Your task to perform on an android device: turn off notifications in google photos Image 0: 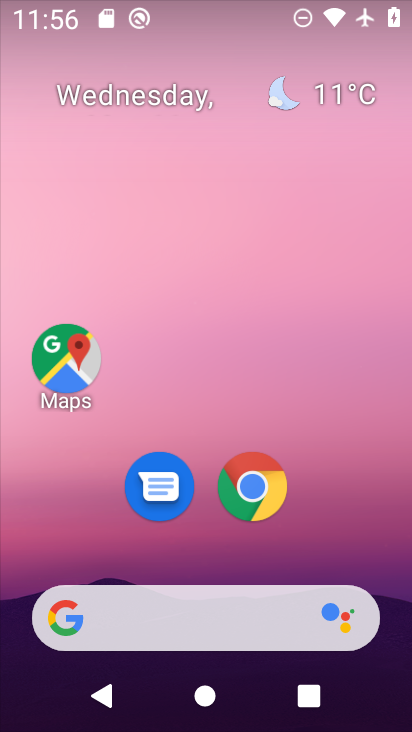
Step 0: drag from (337, 501) to (335, 51)
Your task to perform on an android device: turn off notifications in google photos Image 1: 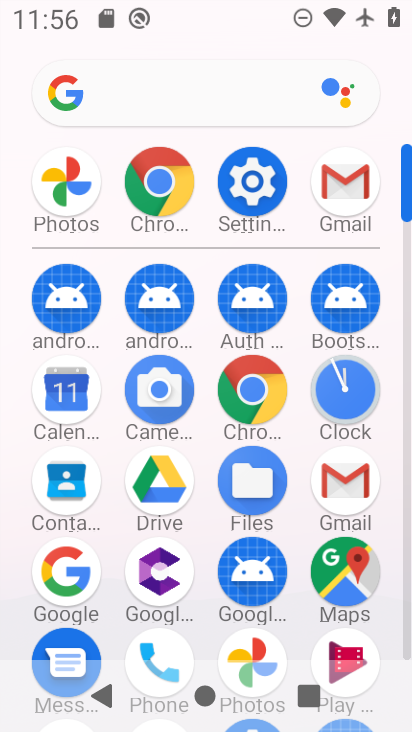
Step 1: drag from (13, 620) to (1, 351)
Your task to perform on an android device: turn off notifications in google photos Image 2: 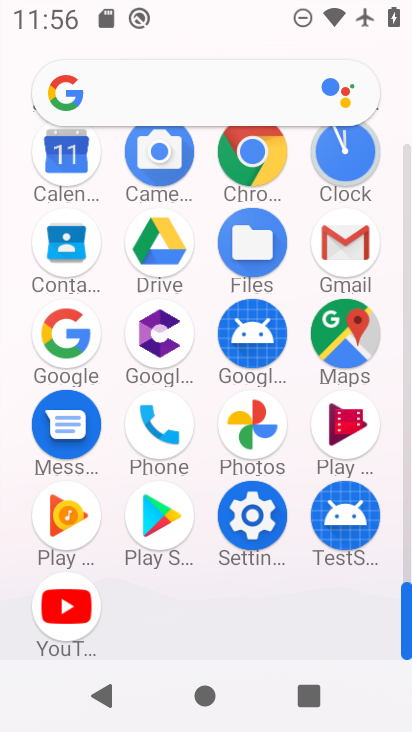
Step 2: click (252, 424)
Your task to perform on an android device: turn off notifications in google photos Image 3: 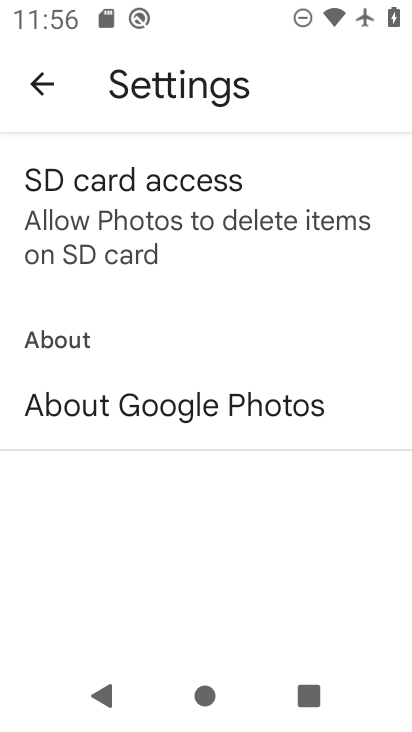
Step 3: click (29, 82)
Your task to perform on an android device: turn off notifications in google photos Image 4: 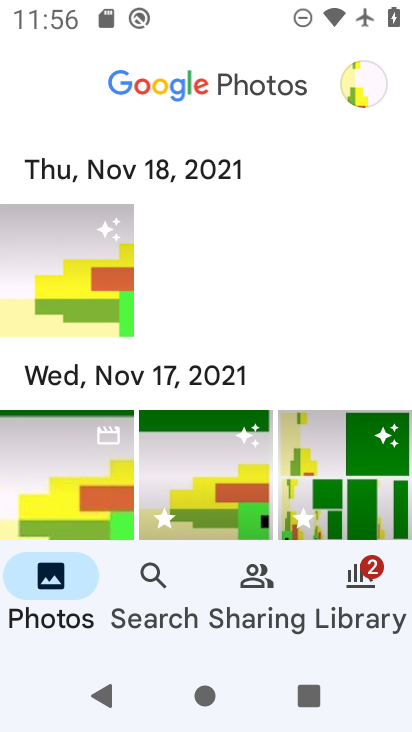
Step 4: click (353, 78)
Your task to perform on an android device: turn off notifications in google photos Image 5: 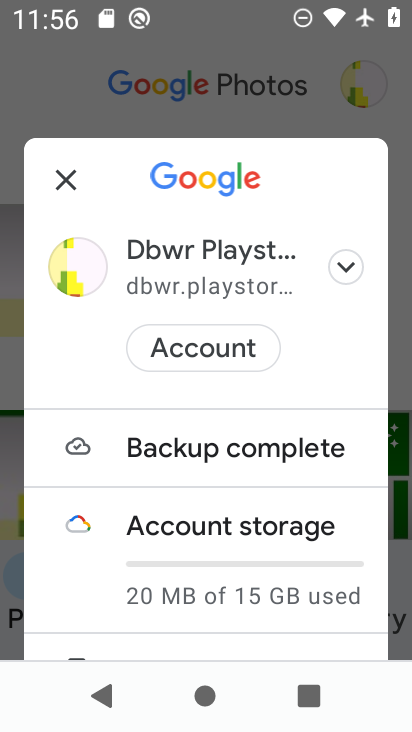
Step 5: drag from (246, 594) to (274, 250)
Your task to perform on an android device: turn off notifications in google photos Image 6: 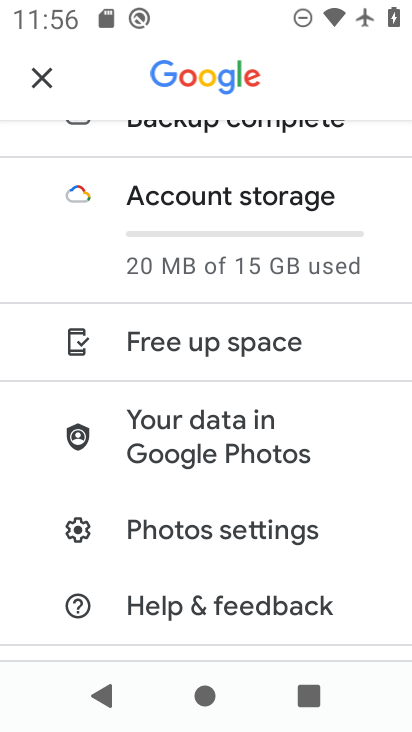
Step 6: click (240, 529)
Your task to perform on an android device: turn off notifications in google photos Image 7: 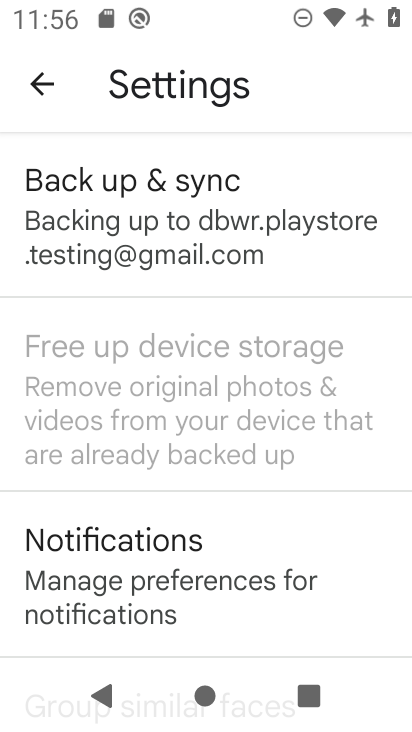
Step 7: click (246, 546)
Your task to perform on an android device: turn off notifications in google photos Image 8: 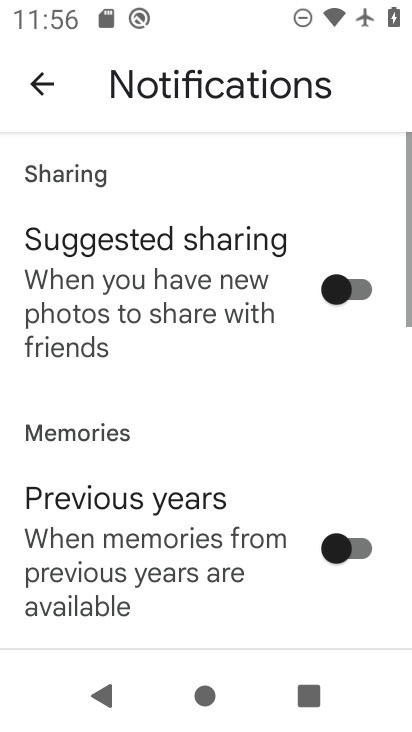
Step 8: drag from (242, 569) to (244, 132)
Your task to perform on an android device: turn off notifications in google photos Image 9: 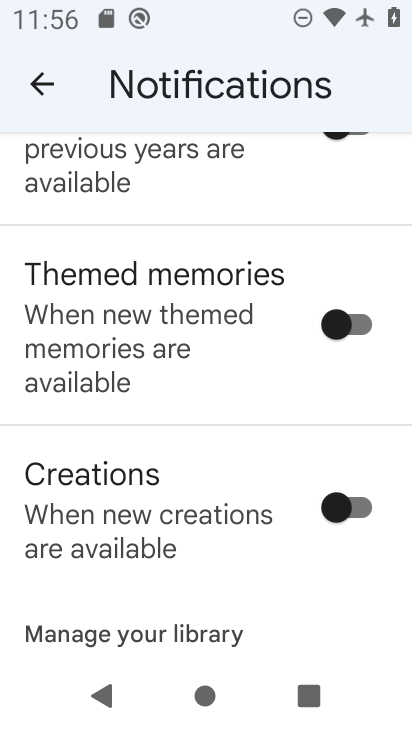
Step 9: drag from (191, 604) to (190, 153)
Your task to perform on an android device: turn off notifications in google photos Image 10: 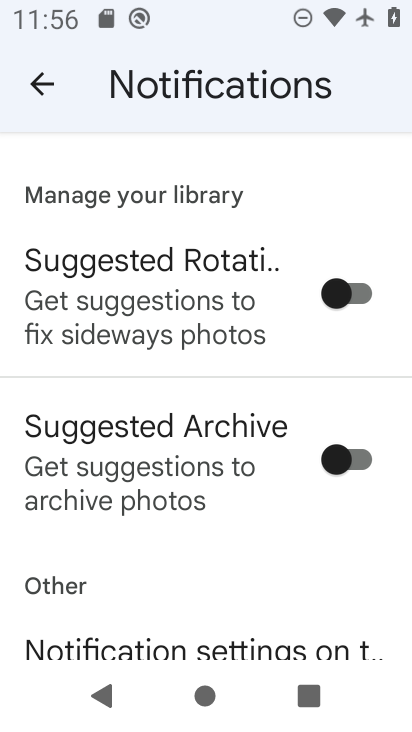
Step 10: drag from (183, 525) to (175, 199)
Your task to perform on an android device: turn off notifications in google photos Image 11: 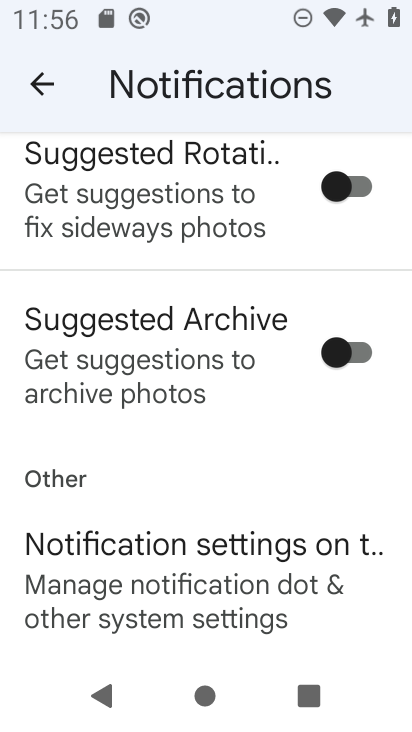
Step 11: click (145, 632)
Your task to perform on an android device: turn off notifications in google photos Image 12: 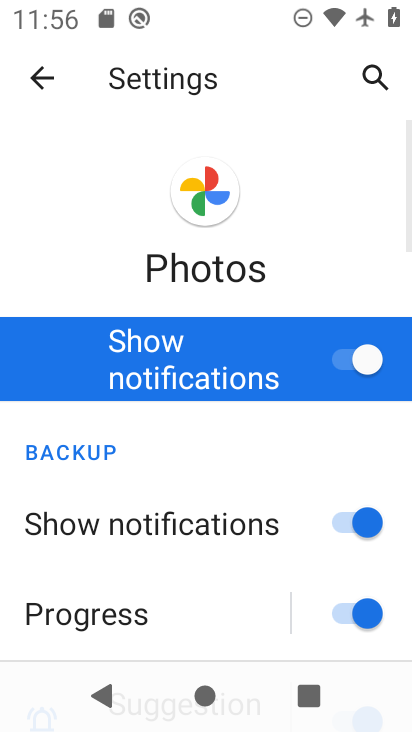
Step 12: click (329, 355)
Your task to perform on an android device: turn off notifications in google photos Image 13: 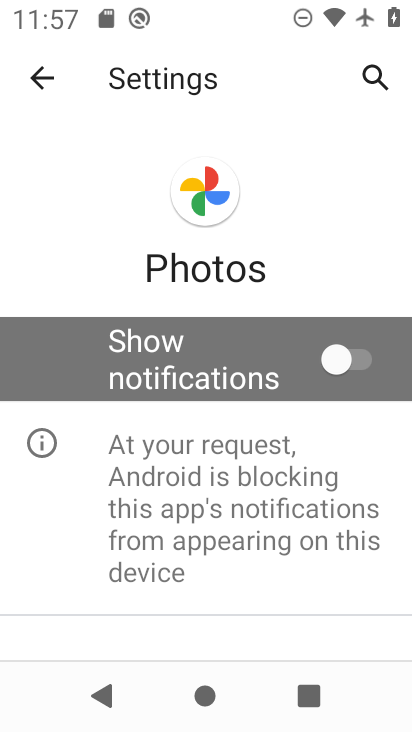
Step 13: task complete